Your task to perform on an android device: turn off improve location accuracy Image 0: 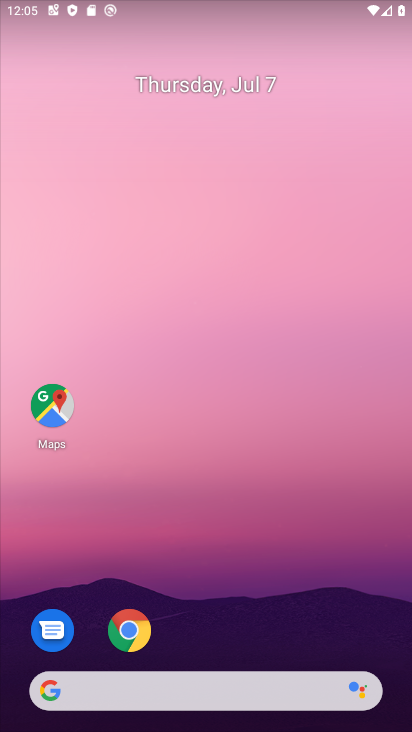
Step 0: drag from (215, 588) to (229, 111)
Your task to perform on an android device: turn off improve location accuracy Image 1: 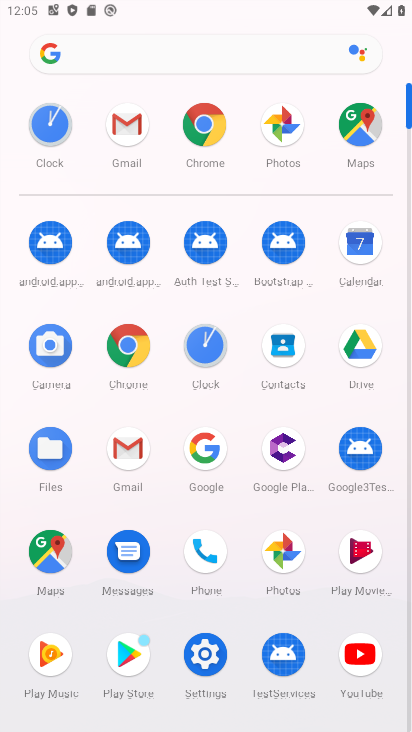
Step 1: click (203, 660)
Your task to perform on an android device: turn off improve location accuracy Image 2: 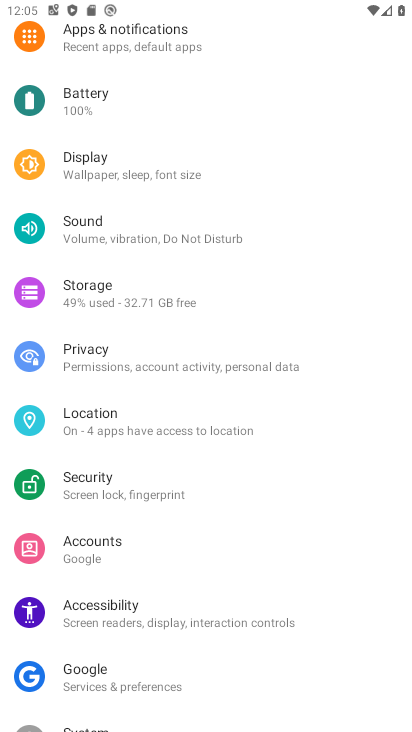
Step 2: click (146, 425)
Your task to perform on an android device: turn off improve location accuracy Image 3: 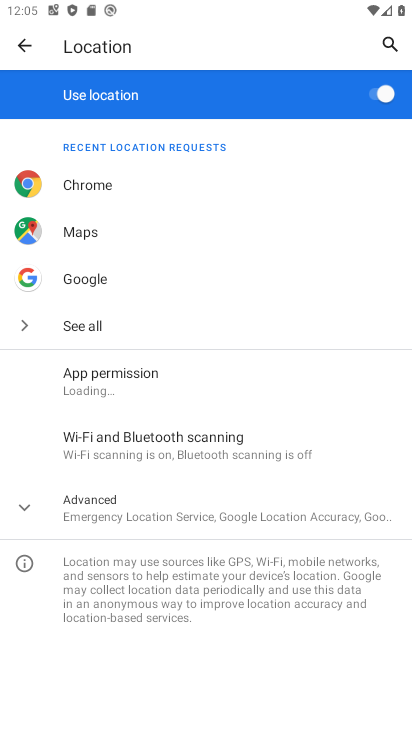
Step 3: click (133, 514)
Your task to perform on an android device: turn off improve location accuracy Image 4: 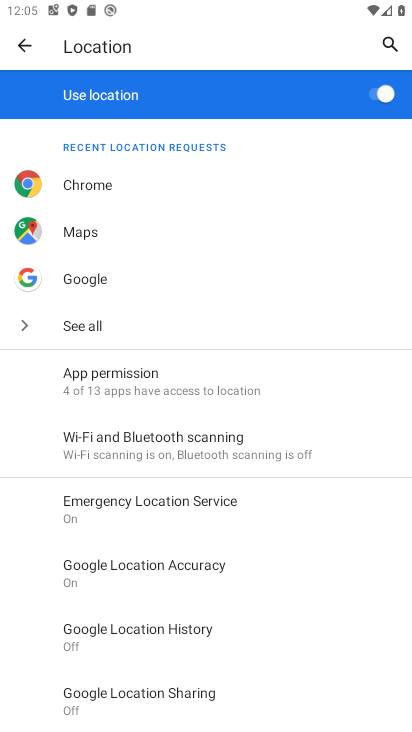
Step 4: click (181, 568)
Your task to perform on an android device: turn off improve location accuracy Image 5: 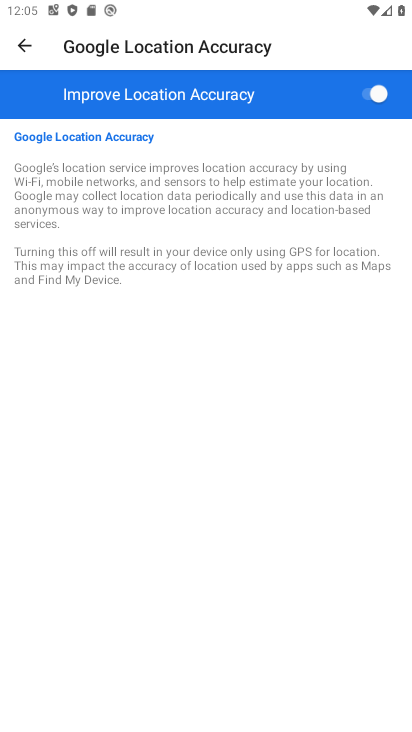
Step 5: click (359, 93)
Your task to perform on an android device: turn off improve location accuracy Image 6: 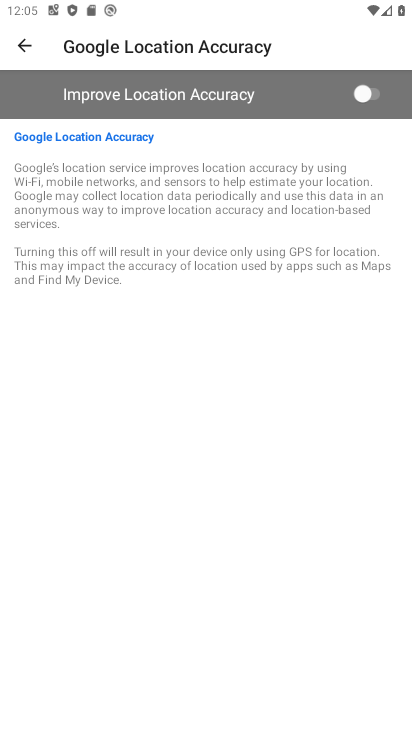
Step 6: task complete